Your task to perform on an android device: Turn on the flashlight Image 0: 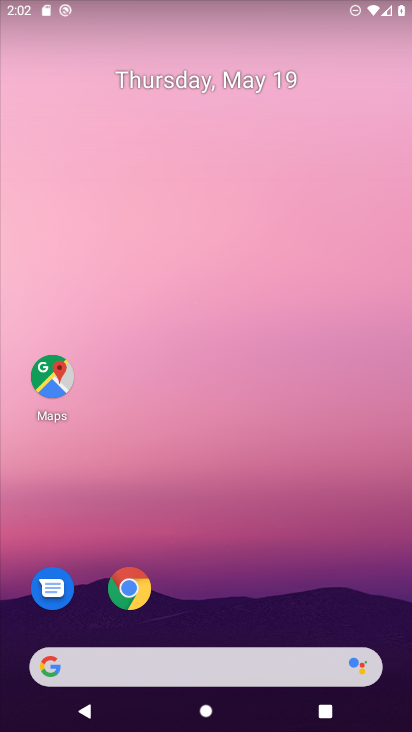
Step 0: drag from (214, 9) to (238, 623)
Your task to perform on an android device: Turn on the flashlight Image 1: 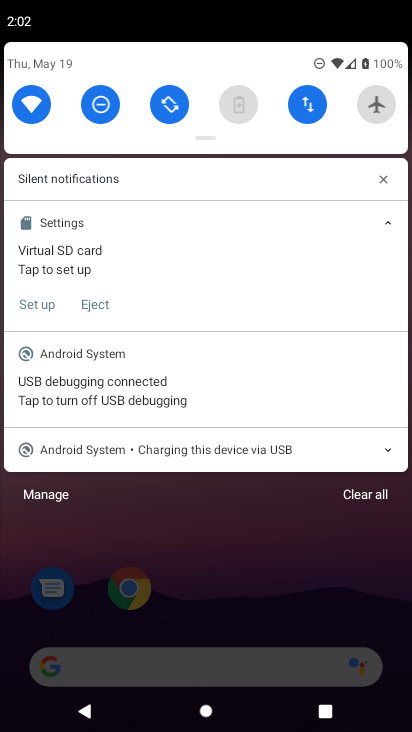
Step 1: task complete